Your task to perform on an android device: Open Google Image 0: 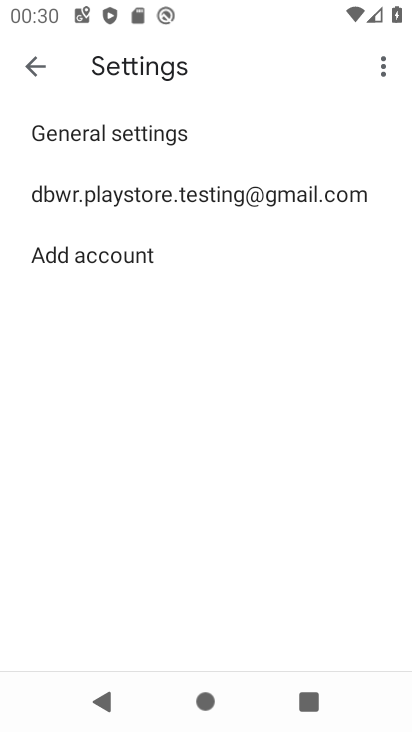
Step 0: press home button
Your task to perform on an android device: Open Google Image 1: 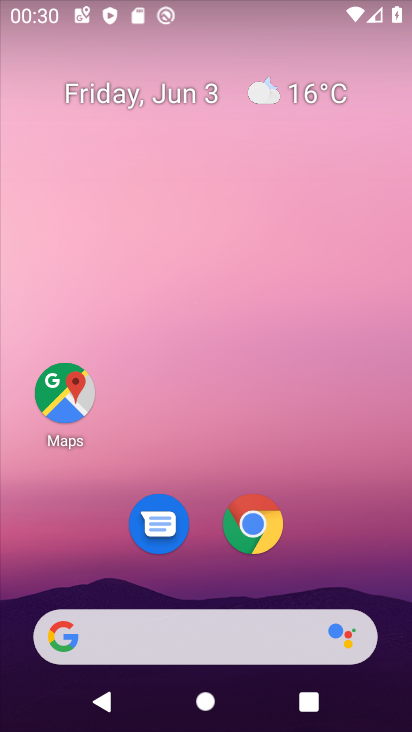
Step 1: click (114, 632)
Your task to perform on an android device: Open Google Image 2: 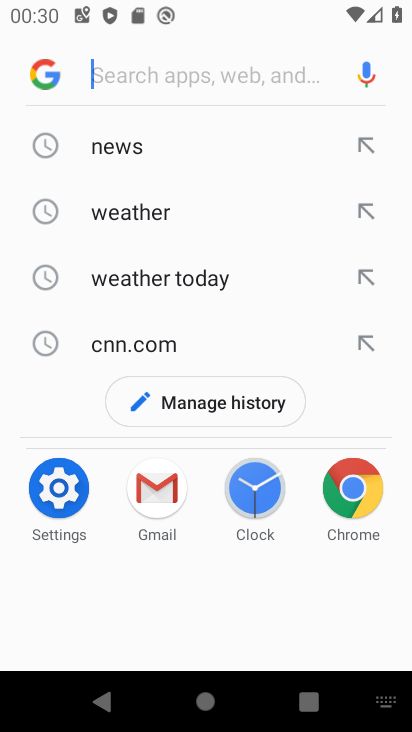
Step 2: click (53, 79)
Your task to perform on an android device: Open Google Image 3: 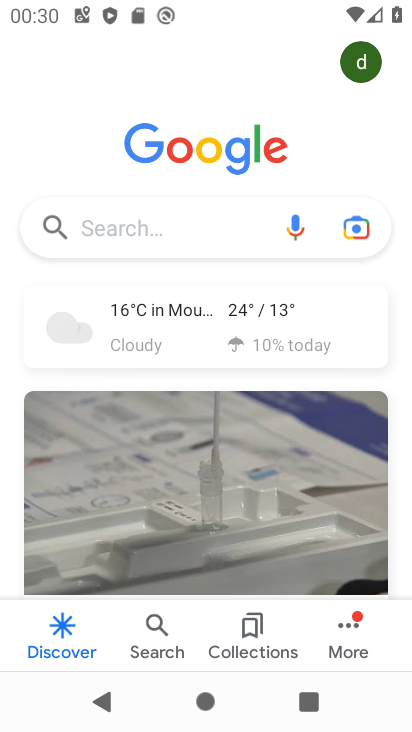
Step 3: task complete